Your task to perform on an android device: open a bookmark in the chrome app Image 0: 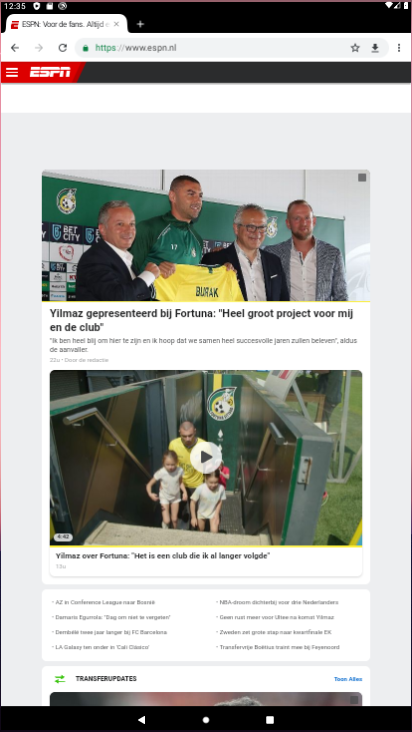
Step 0: drag from (245, 671) to (209, 186)
Your task to perform on an android device: open a bookmark in the chrome app Image 1: 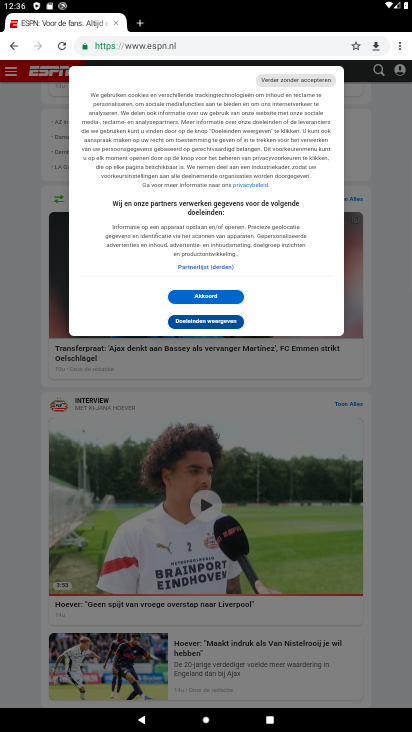
Step 1: press home button
Your task to perform on an android device: open a bookmark in the chrome app Image 2: 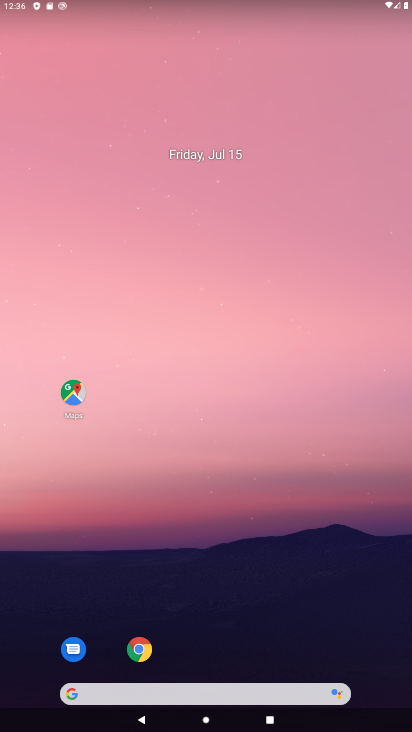
Step 2: drag from (229, 666) to (224, 200)
Your task to perform on an android device: open a bookmark in the chrome app Image 3: 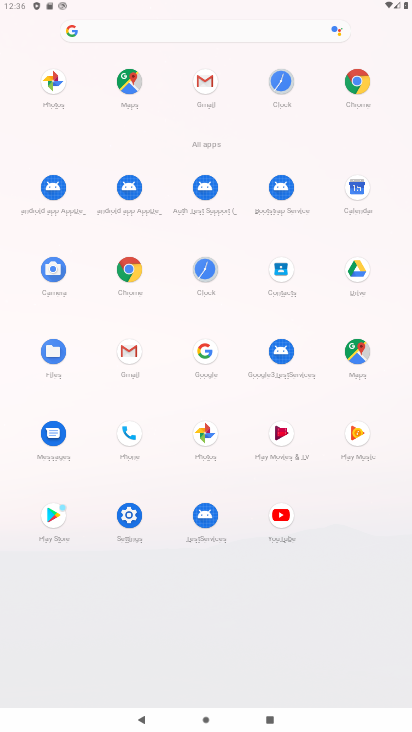
Step 3: click (355, 82)
Your task to perform on an android device: open a bookmark in the chrome app Image 4: 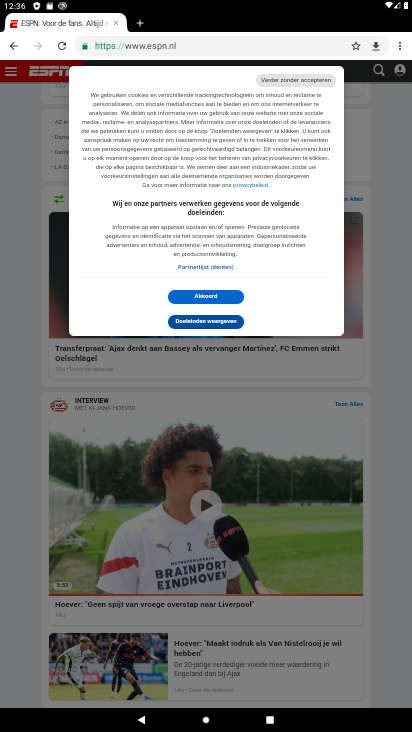
Step 4: click (406, 45)
Your task to perform on an android device: open a bookmark in the chrome app Image 5: 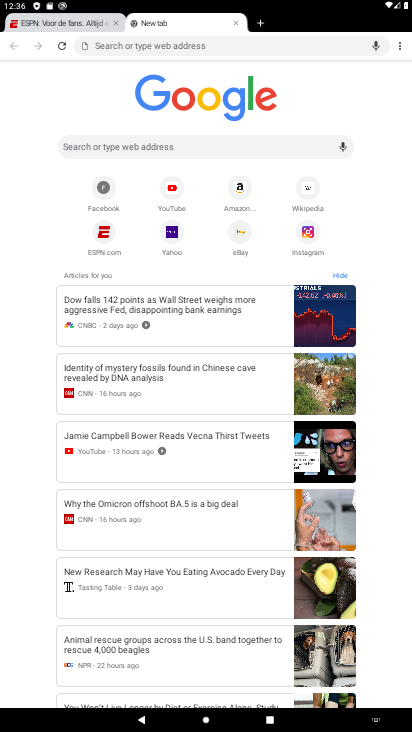
Step 5: click (395, 41)
Your task to perform on an android device: open a bookmark in the chrome app Image 6: 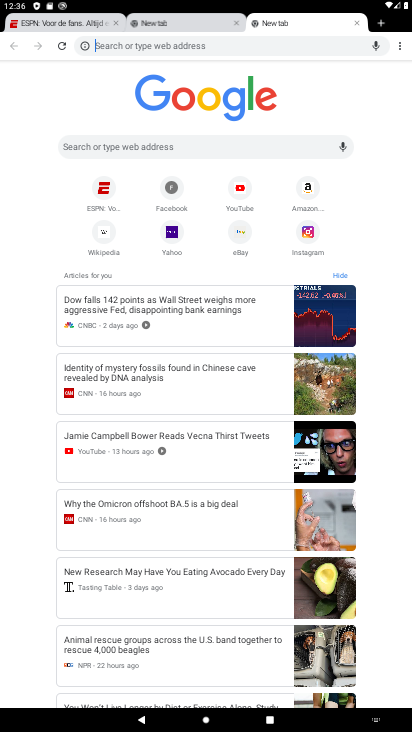
Step 6: click (409, 50)
Your task to perform on an android device: open a bookmark in the chrome app Image 7: 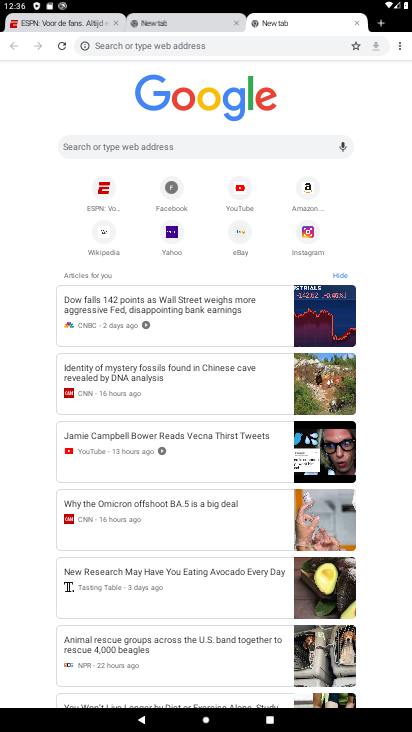
Step 7: click (400, 45)
Your task to perform on an android device: open a bookmark in the chrome app Image 8: 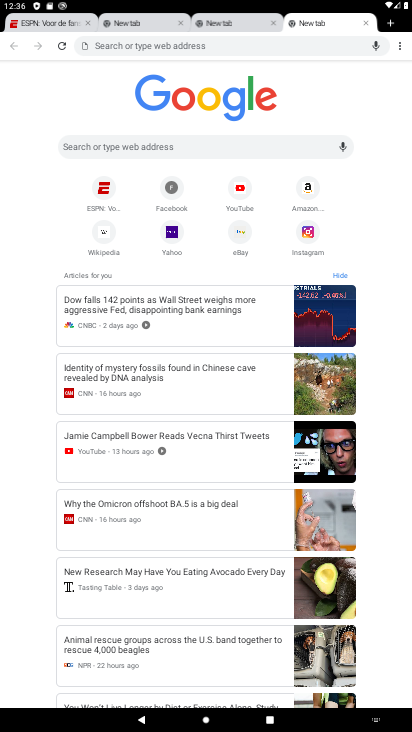
Step 8: click (399, 46)
Your task to perform on an android device: open a bookmark in the chrome app Image 9: 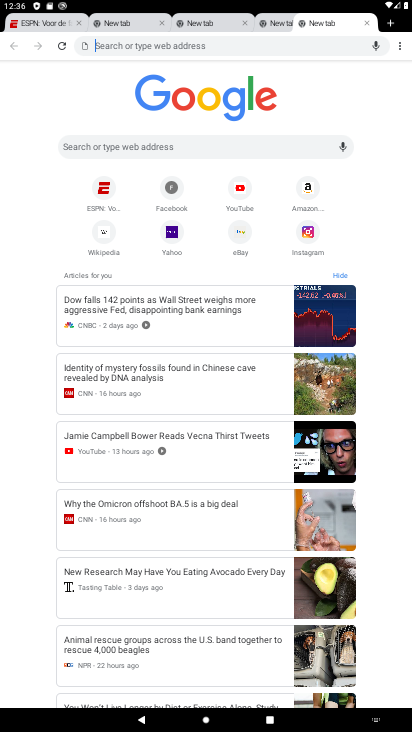
Step 9: click (405, 39)
Your task to perform on an android device: open a bookmark in the chrome app Image 10: 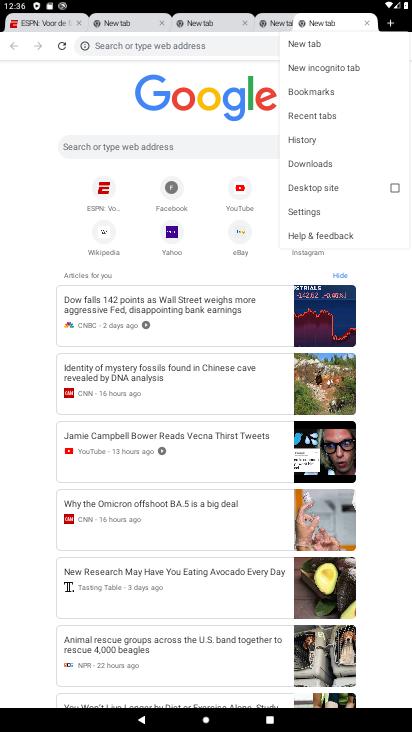
Step 10: click (325, 94)
Your task to perform on an android device: open a bookmark in the chrome app Image 11: 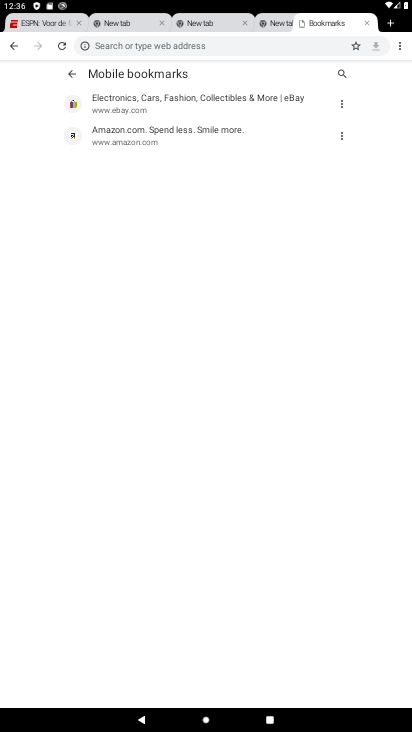
Step 11: task complete